Your task to perform on an android device: find which apps use the phone's location Image 0: 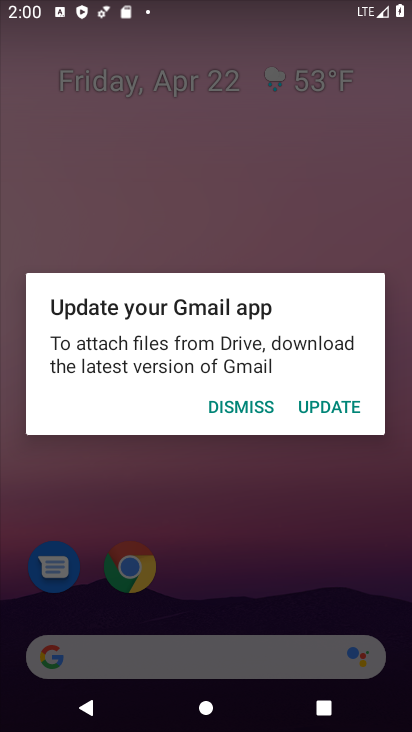
Step 0: press home button
Your task to perform on an android device: find which apps use the phone's location Image 1: 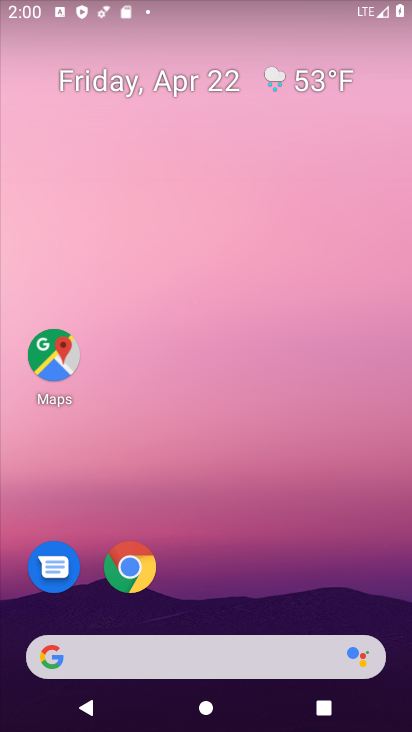
Step 1: drag from (309, 605) to (232, 134)
Your task to perform on an android device: find which apps use the phone's location Image 2: 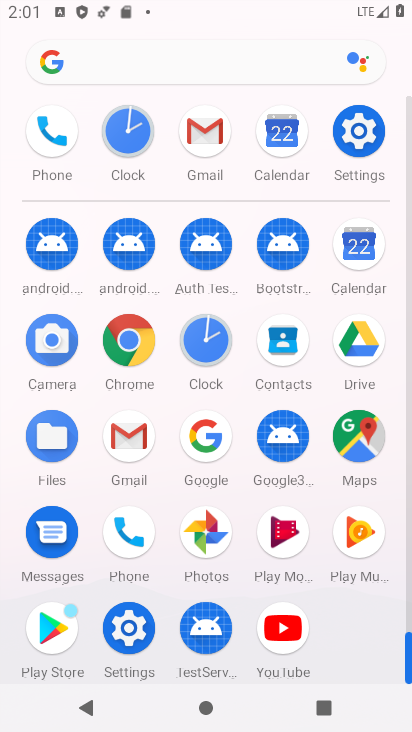
Step 2: click (129, 627)
Your task to perform on an android device: find which apps use the phone's location Image 3: 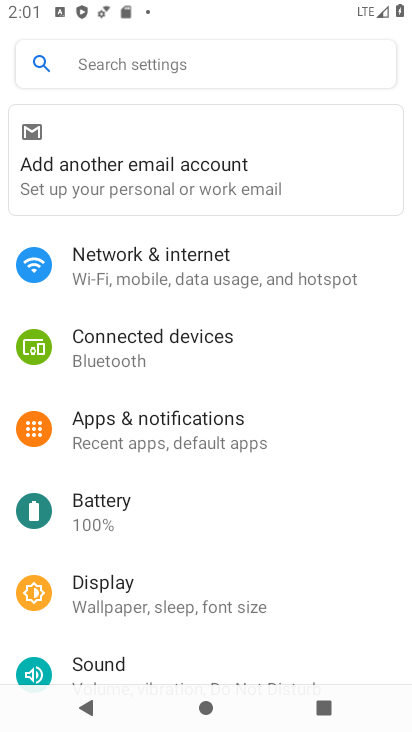
Step 3: drag from (240, 587) to (252, 292)
Your task to perform on an android device: find which apps use the phone's location Image 4: 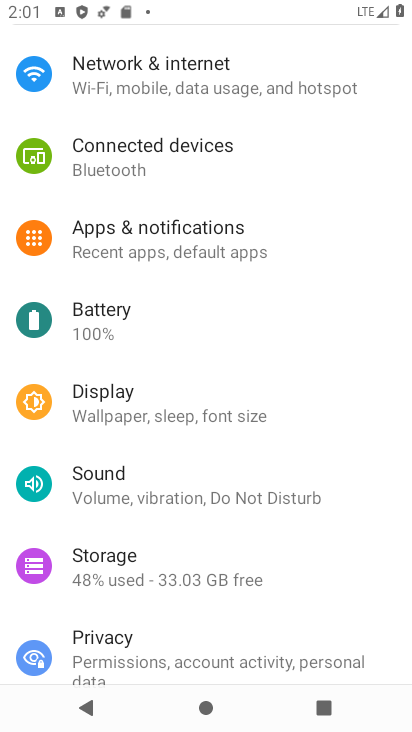
Step 4: drag from (308, 563) to (305, 336)
Your task to perform on an android device: find which apps use the phone's location Image 5: 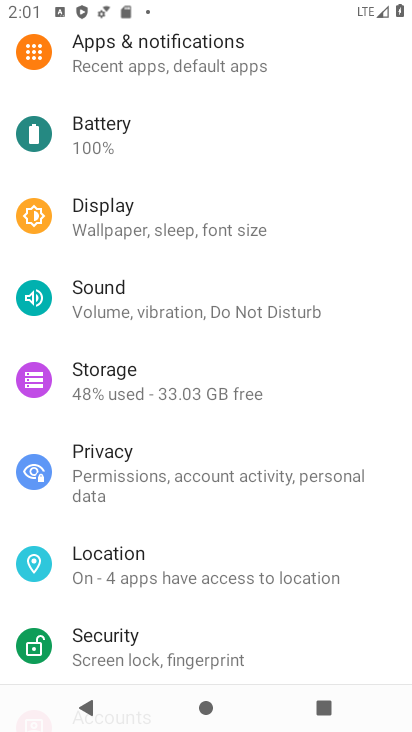
Step 5: click (130, 568)
Your task to perform on an android device: find which apps use the phone's location Image 6: 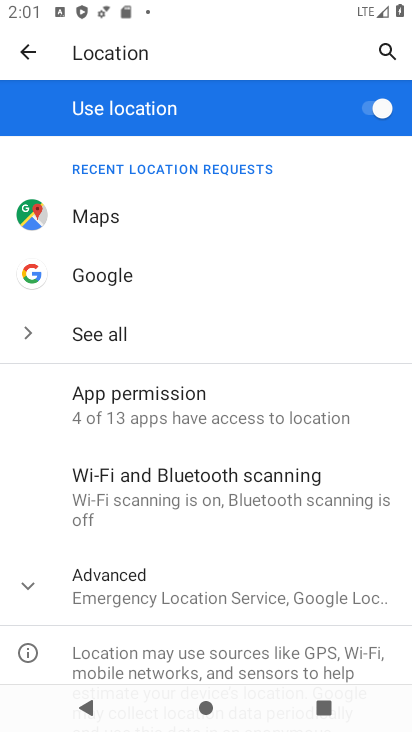
Step 6: click (139, 396)
Your task to perform on an android device: find which apps use the phone's location Image 7: 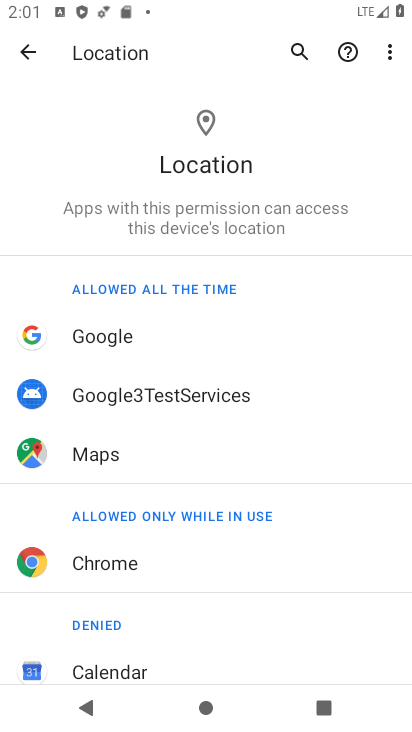
Step 7: drag from (306, 611) to (314, 251)
Your task to perform on an android device: find which apps use the phone's location Image 8: 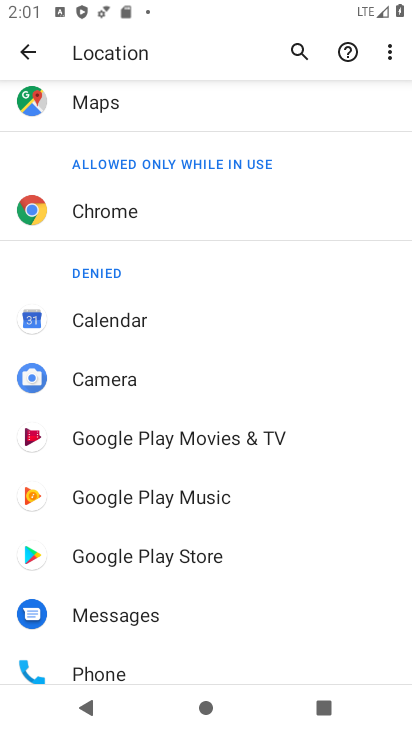
Step 8: drag from (302, 543) to (301, 258)
Your task to perform on an android device: find which apps use the phone's location Image 9: 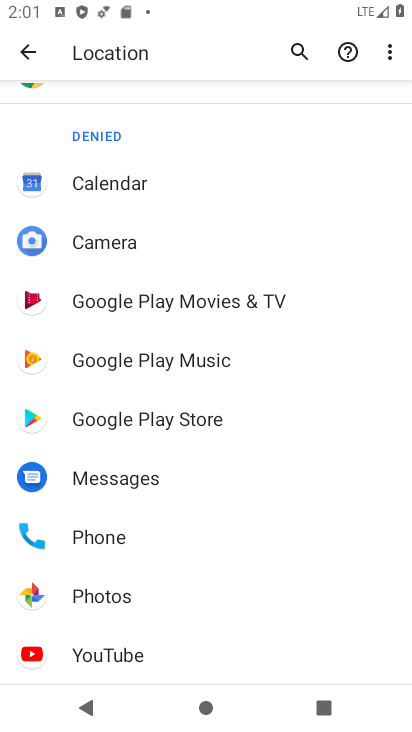
Step 9: drag from (273, 500) to (287, 212)
Your task to perform on an android device: find which apps use the phone's location Image 10: 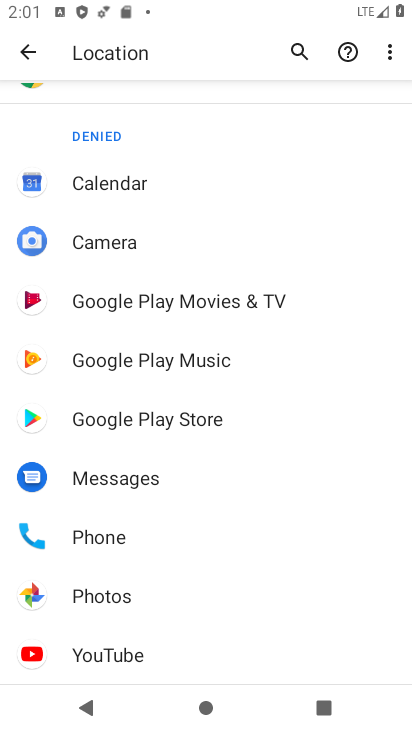
Step 10: click (86, 594)
Your task to perform on an android device: find which apps use the phone's location Image 11: 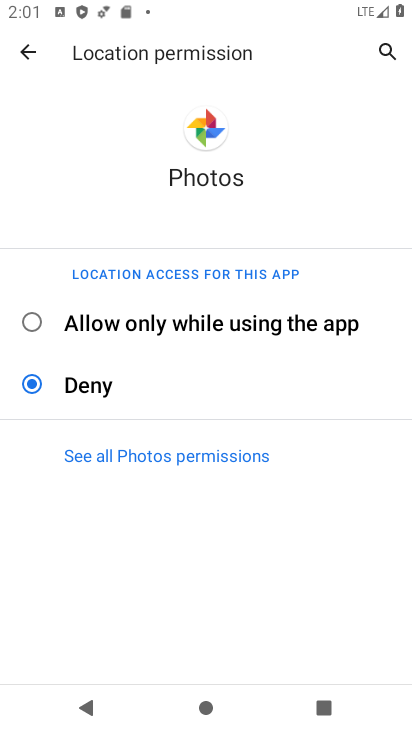
Step 11: task complete